Your task to perform on an android device: turn pop-ups off in chrome Image 0: 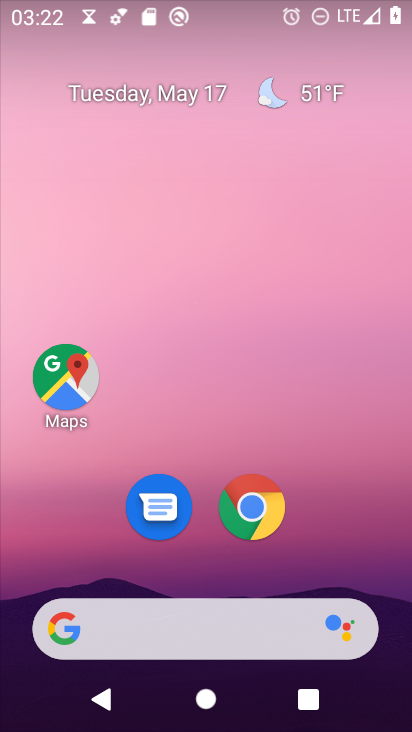
Step 0: click (249, 510)
Your task to perform on an android device: turn pop-ups off in chrome Image 1: 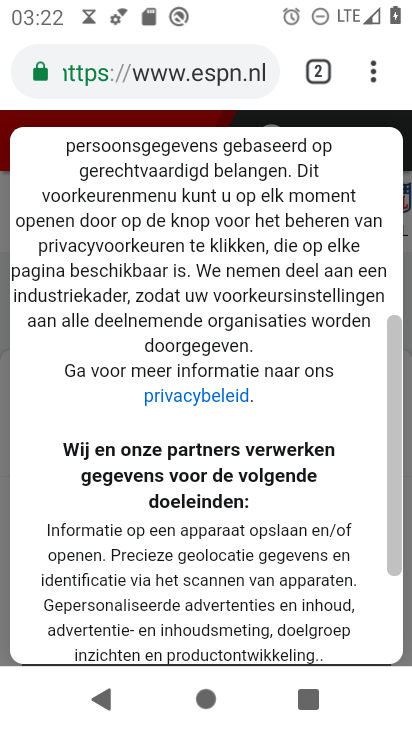
Step 1: click (365, 70)
Your task to perform on an android device: turn pop-ups off in chrome Image 2: 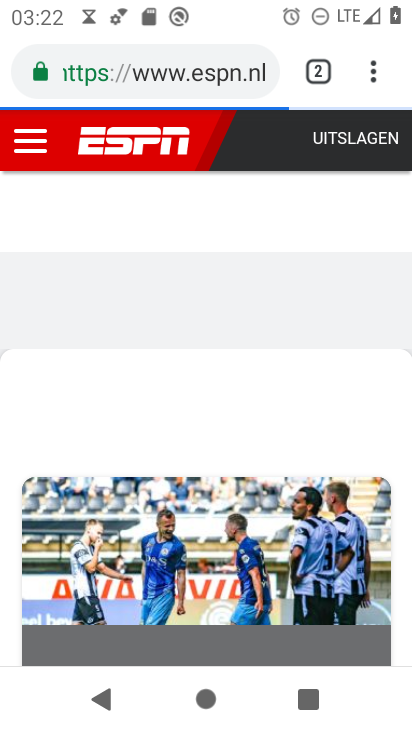
Step 2: click (365, 70)
Your task to perform on an android device: turn pop-ups off in chrome Image 3: 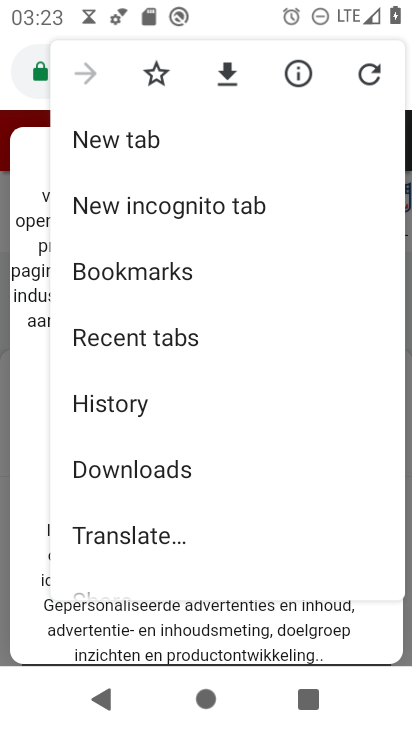
Step 3: drag from (231, 523) to (201, 200)
Your task to perform on an android device: turn pop-ups off in chrome Image 4: 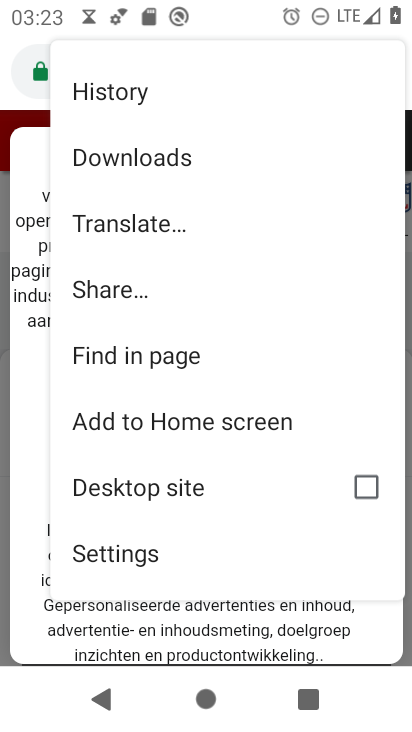
Step 4: click (155, 554)
Your task to perform on an android device: turn pop-ups off in chrome Image 5: 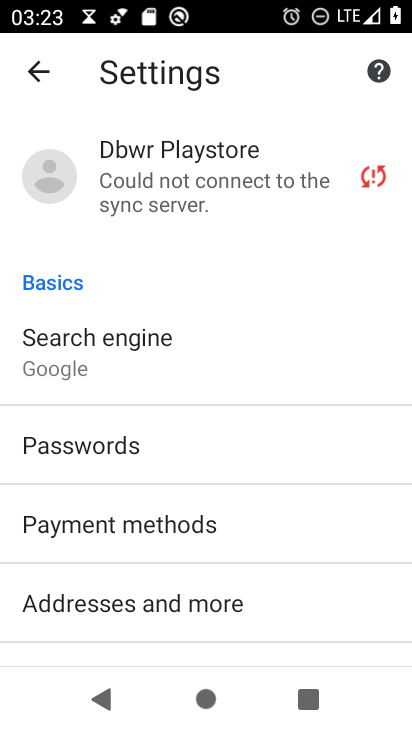
Step 5: drag from (194, 599) to (186, 215)
Your task to perform on an android device: turn pop-ups off in chrome Image 6: 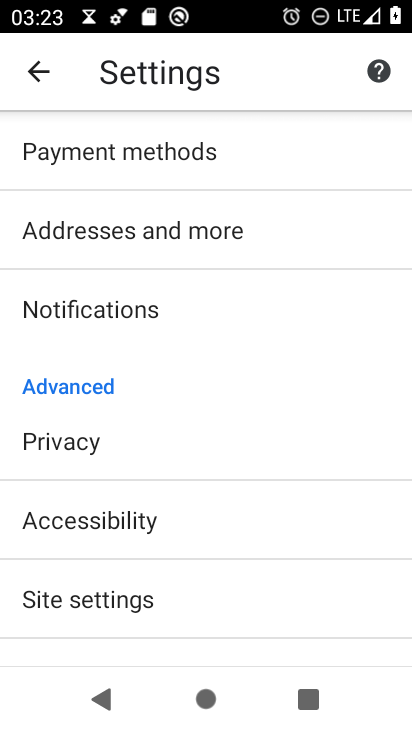
Step 6: click (172, 603)
Your task to perform on an android device: turn pop-ups off in chrome Image 7: 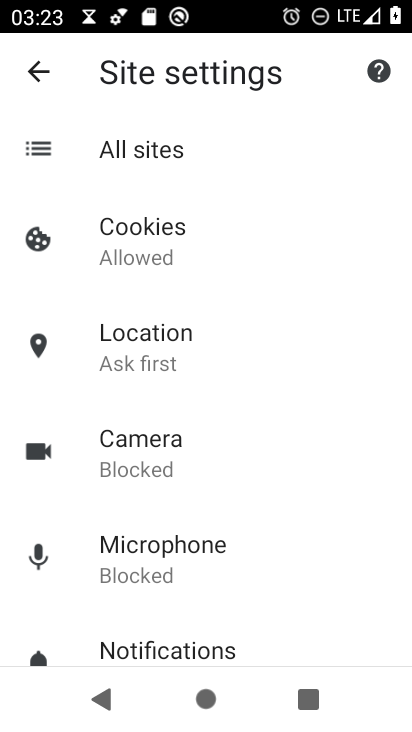
Step 7: drag from (180, 574) to (179, 288)
Your task to perform on an android device: turn pop-ups off in chrome Image 8: 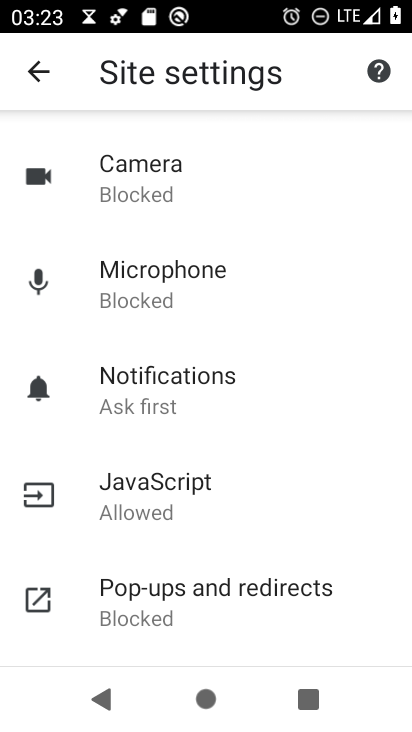
Step 8: click (231, 600)
Your task to perform on an android device: turn pop-ups off in chrome Image 9: 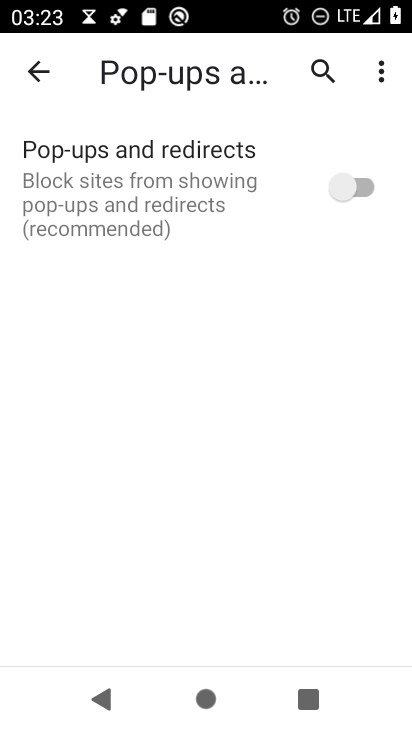
Step 9: task complete